Your task to perform on an android device: empty trash in the gmail app Image 0: 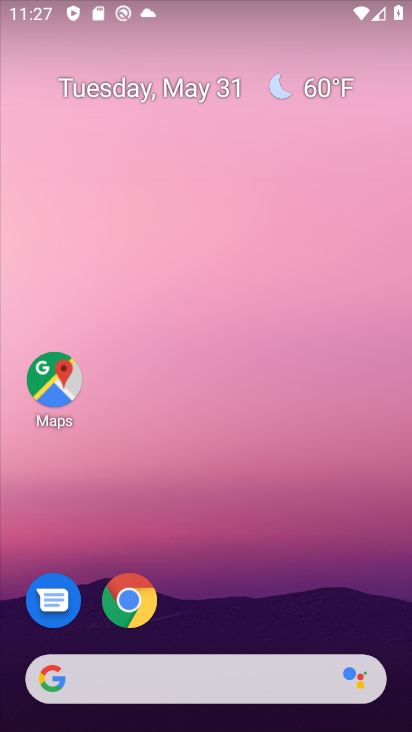
Step 0: drag from (348, 531) to (351, 125)
Your task to perform on an android device: empty trash in the gmail app Image 1: 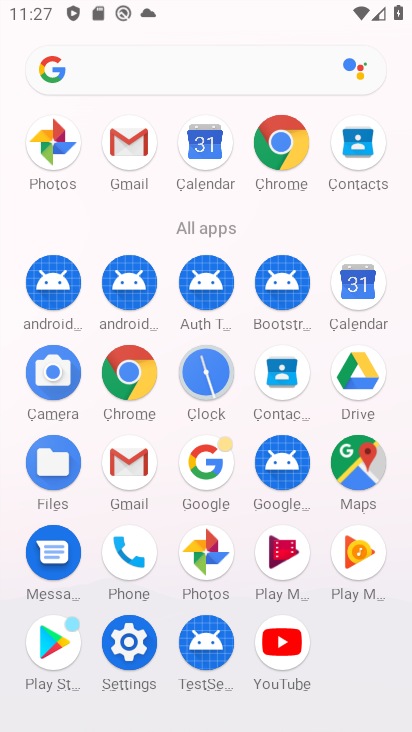
Step 1: click (123, 462)
Your task to perform on an android device: empty trash in the gmail app Image 2: 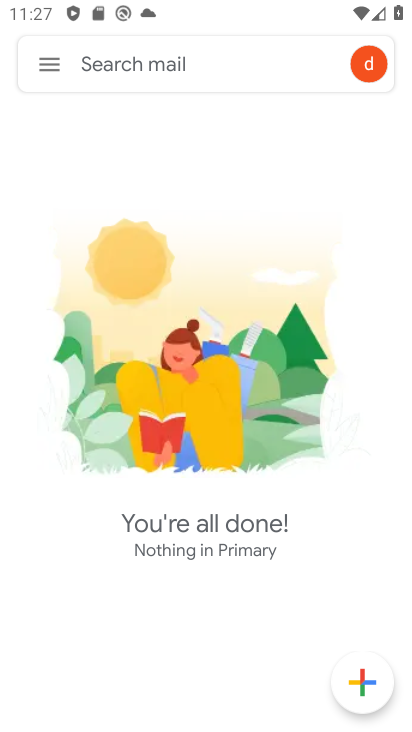
Step 2: click (48, 73)
Your task to perform on an android device: empty trash in the gmail app Image 3: 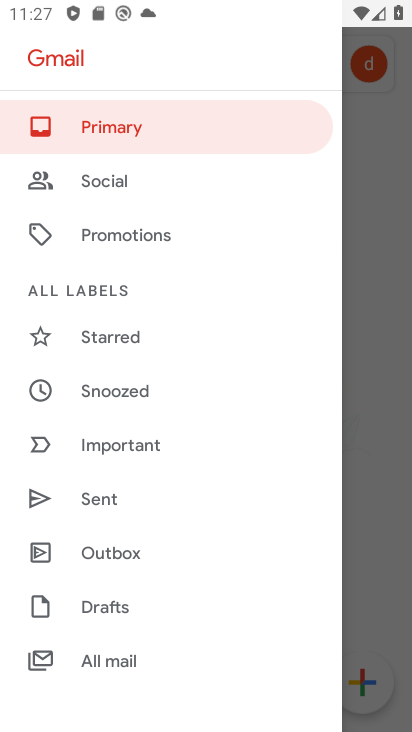
Step 3: drag from (277, 494) to (270, 338)
Your task to perform on an android device: empty trash in the gmail app Image 4: 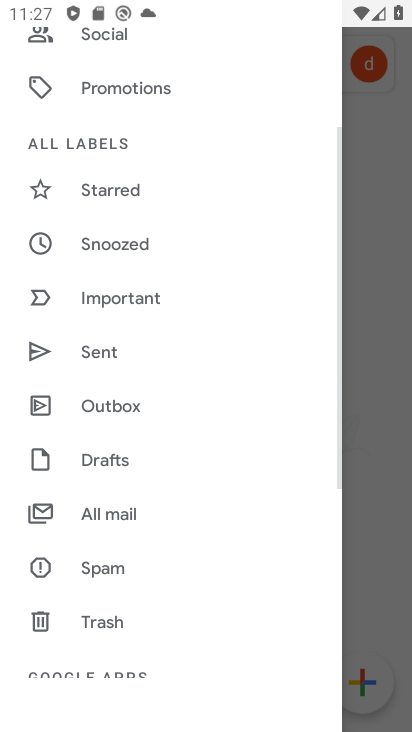
Step 4: drag from (260, 540) to (284, 324)
Your task to perform on an android device: empty trash in the gmail app Image 5: 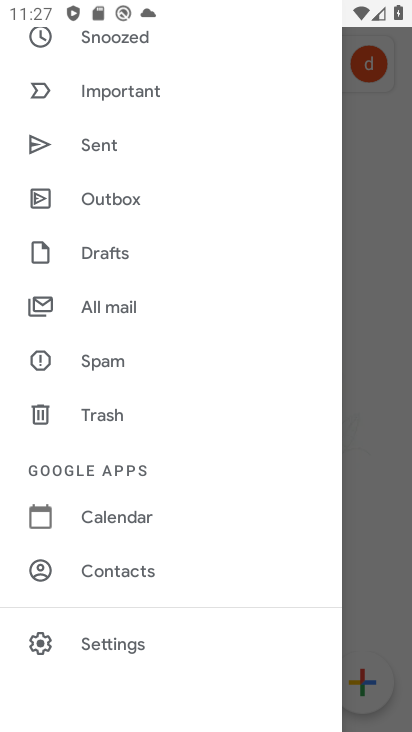
Step 5: click (141, 404)
Your task to perform on an android device: empty trash in the gmail app Image 6: 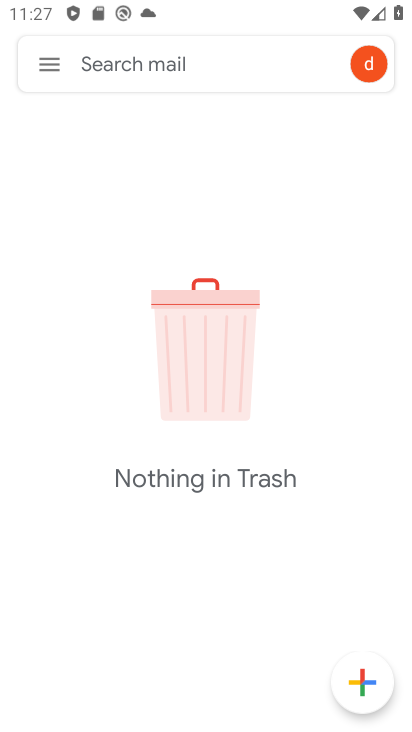
Step 6: task complete